Your task to perform on an android device: What's the weather? Image 0: 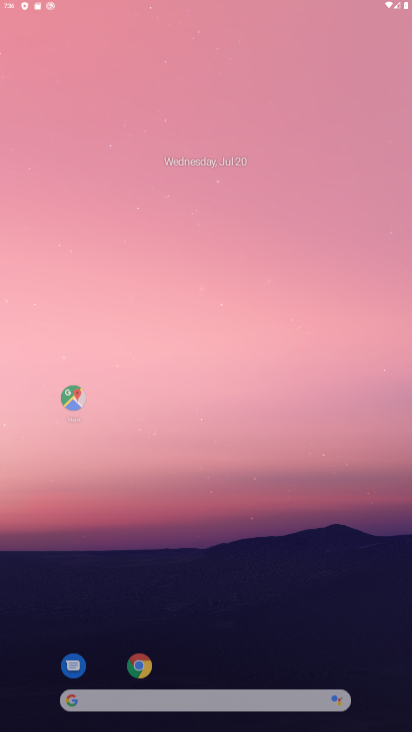
Step 0: click (300, 153)
Your task to perform on an android device: What's the weather? Image 1: 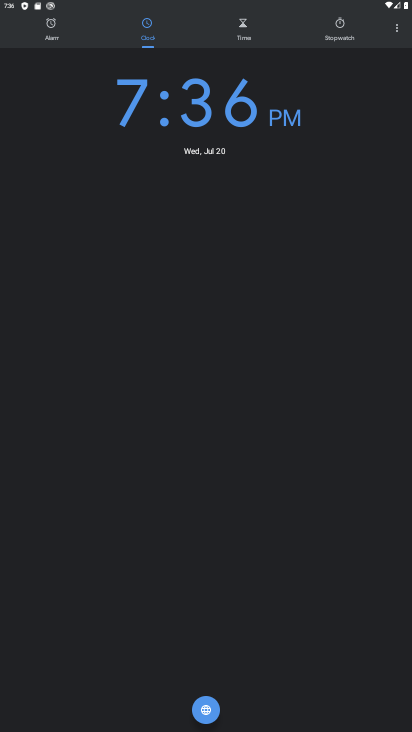
Step 1: press home button
Your task to perform on an android device: What's the weather? Image 2: 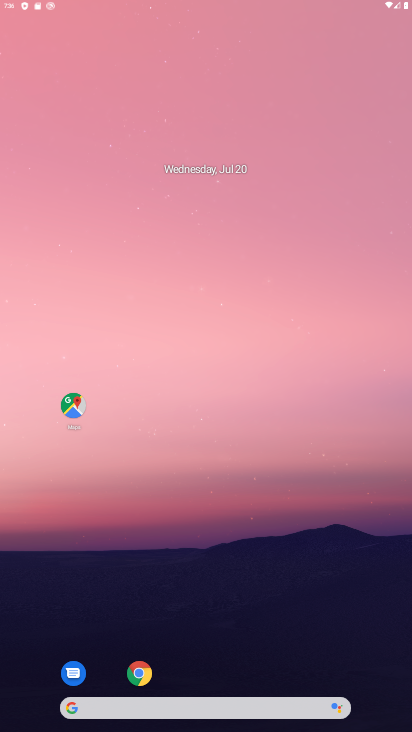
Step 2: drag from (288, 360) to (300, 123)
Your task to perform on an android device: What's the weather? Image 3: 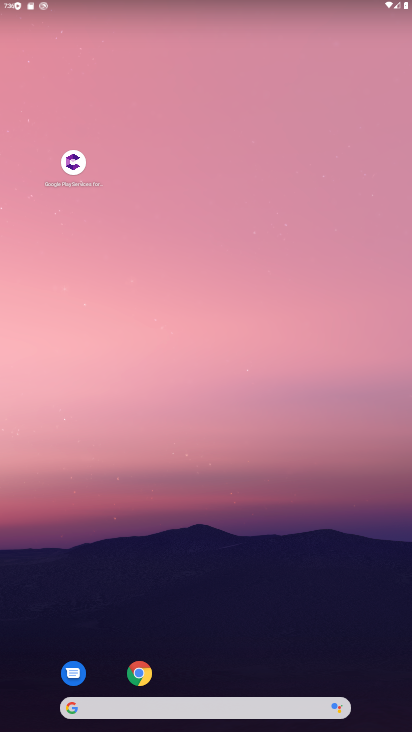
Step 3: drag from (176, 654) to (296, 52)
Your task to perform on an android device: What's the weather? Image 4: 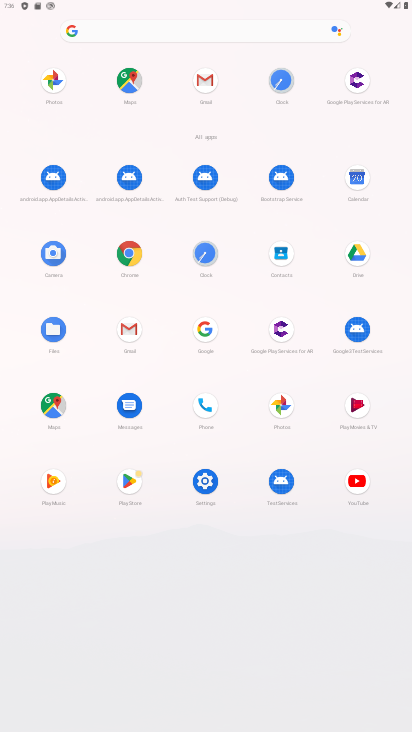
Step 4: click (169, 29)
Your task to perform on an android device: What's the weather? Image 5: 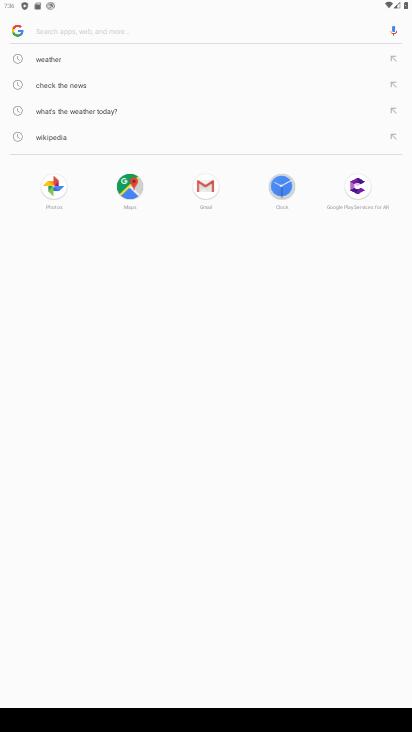
Step 5: click (50, 57)
Your task to perform on an android device: What's the weather? Image 6: 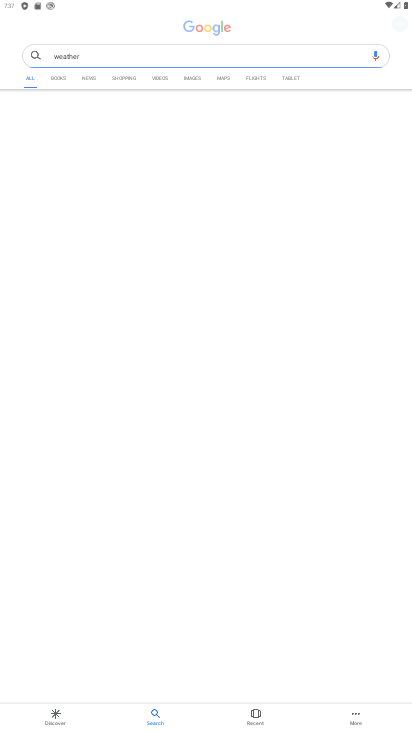
Step 6: task complete